Your task to perform on an android device: Show me the alarms in the clock app Image 0: 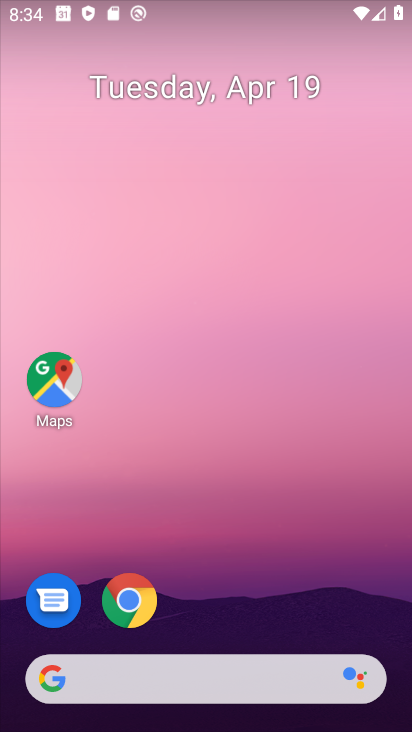
Step 0: click (289, 110)
Your task to perform on an android device: Show me the alarms in the clock app Image 1: 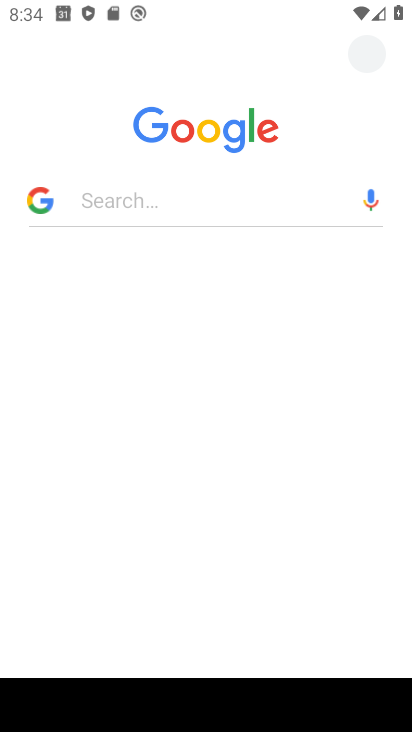
Step 1: press home button
Your task to perform on an android device: Show me the alarms in the clock app Image 2: 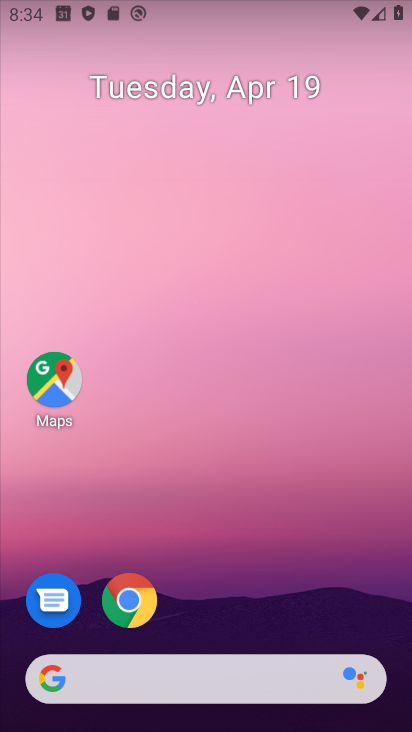
Step 2: drag from (232, 618) to (225, 45)
Your task to perform on an android device: Show me the alarms in the clock app Image 3: 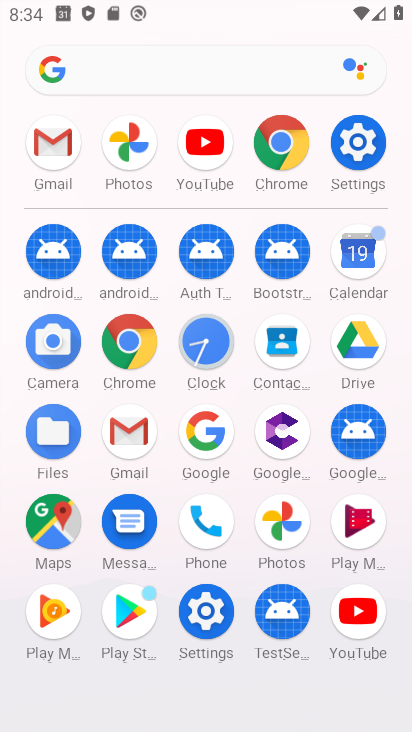
Step 3: click (209, 350)
Your task to perform on an android device: Show me the alarms in the clock app Image 4: 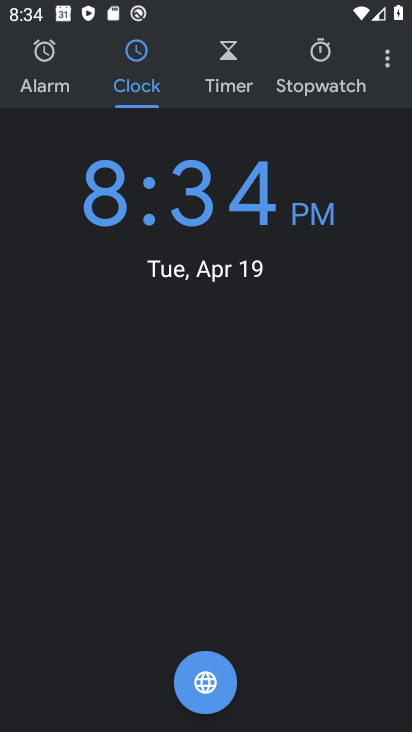
Step 4: click (54, 84)
Your task to perform on an android device: Show me the alarms in the clock app Image 5: 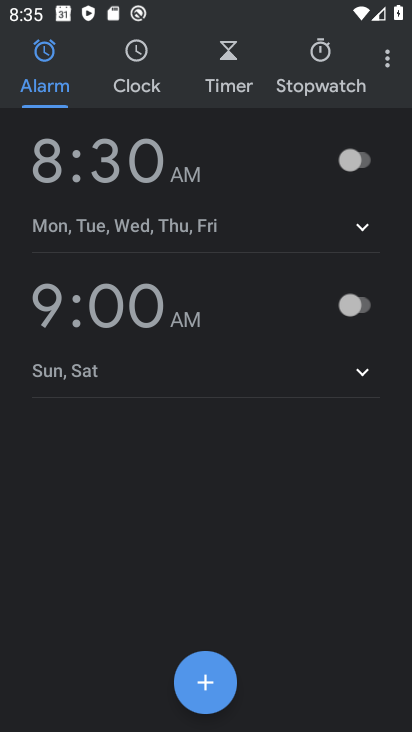
Step 5: click (328, 163)
Your task to perform on an android device: Show me the alarms in the clock app Image 6: 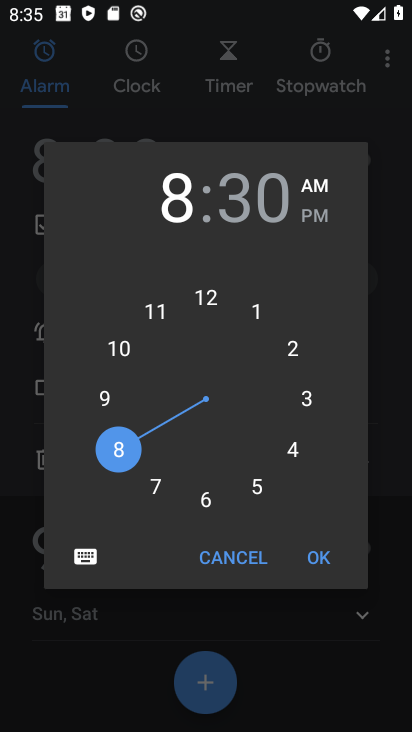
Step 6: click (217, 553)
Your task to perform on an android device: Show me the alarms in the clock app Image 7: 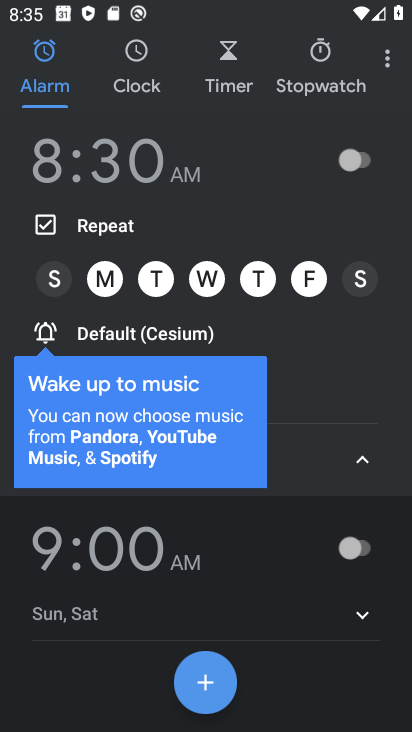
Step 7: click (195, 182)
Your task to perform on an android device: Show me the alarms in the clock app Image 8: 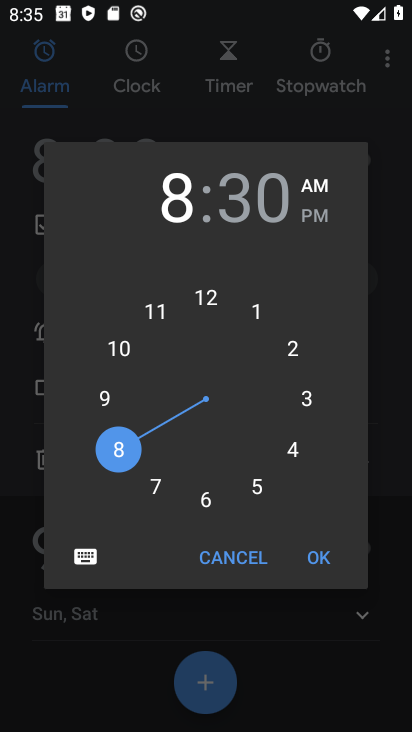
Step 8: click (238, 542)
Your task to perform on an android device: Show me the alarms in the clock app Image 9: 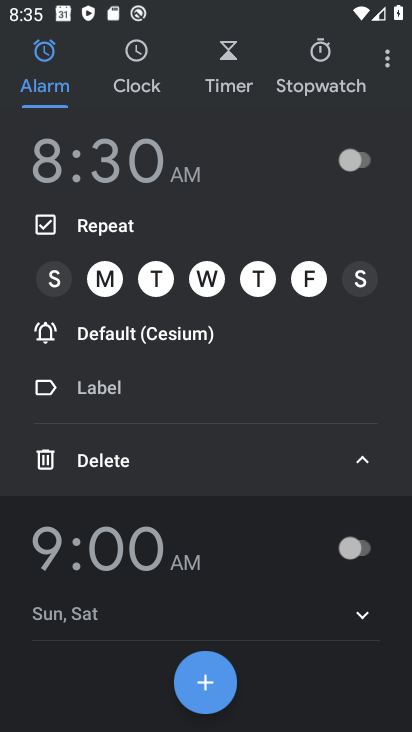
Step 9: task complete